Your task to perform on an android device: toggle show notifications on the lock screen Image 0: 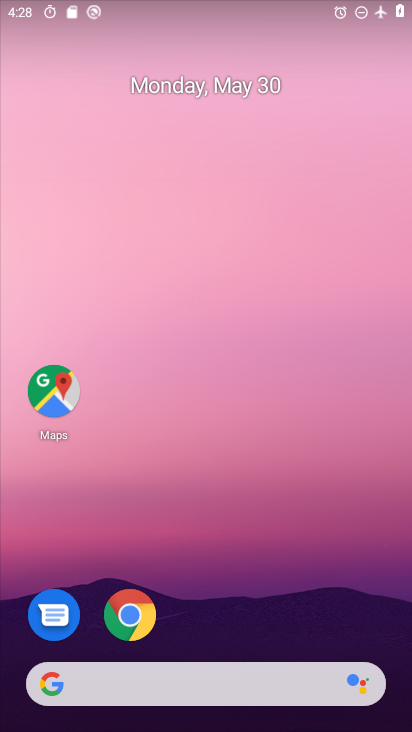
Step 0: drag from (248, 600) to (219, 48)
Your task to perform on an android device: toggle show notifications on the lock screen Image 1: 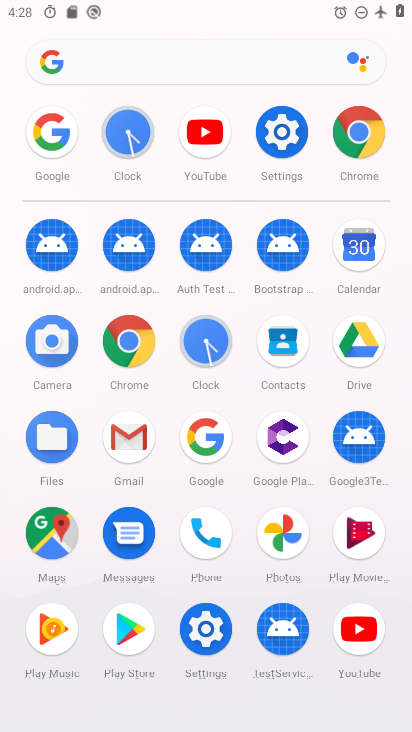
Step 1: click (282, 129)
Your task to perform on an android device: toggle show notifications on the lock screen Image 2: 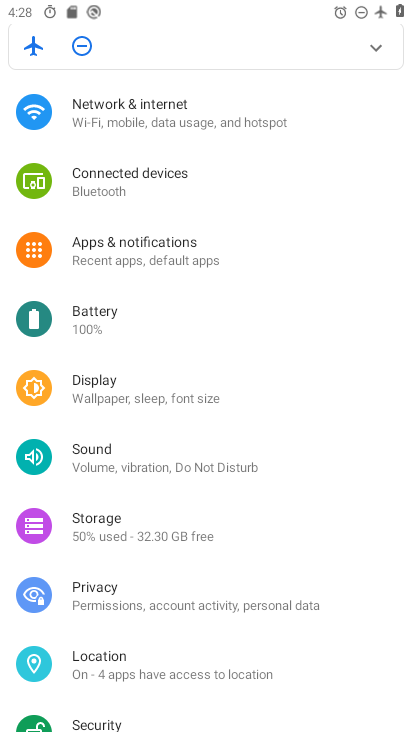
Step 2: click (128, 248)
Your task to perform on an android device: toggle show notifications on the lock screen Image 3: 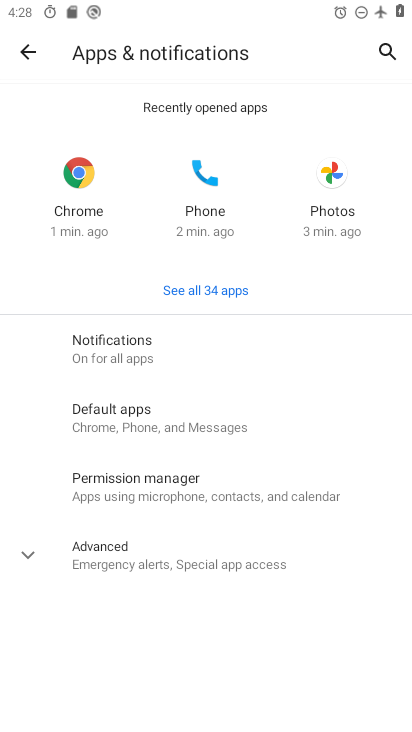
Step 3: click (126, 346)
Your task to perform on an android device: toggle show notifications on the lock screen Image 4: 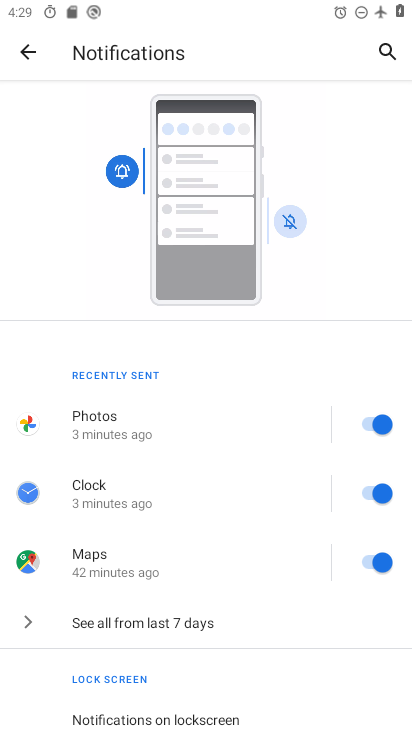
Step 4: drag from (136, 646) to (164, 474)
Your task to perform on an android device: toggle show notifications on the lock screen Image 5: 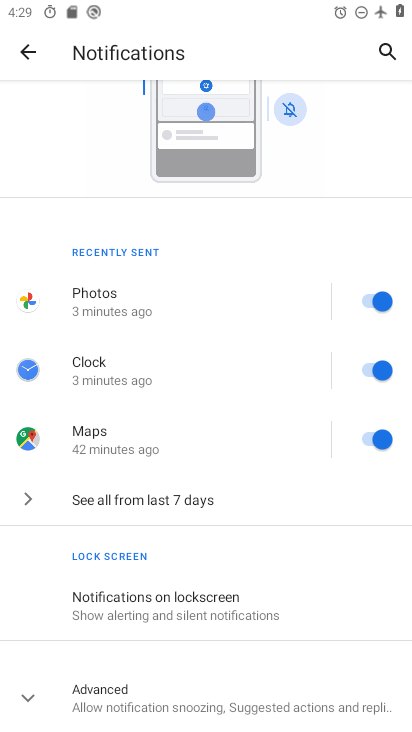
Step 5: click (137, 589)
Your task to perform on an android device: toggle show notifications on the lock screen Image 6: 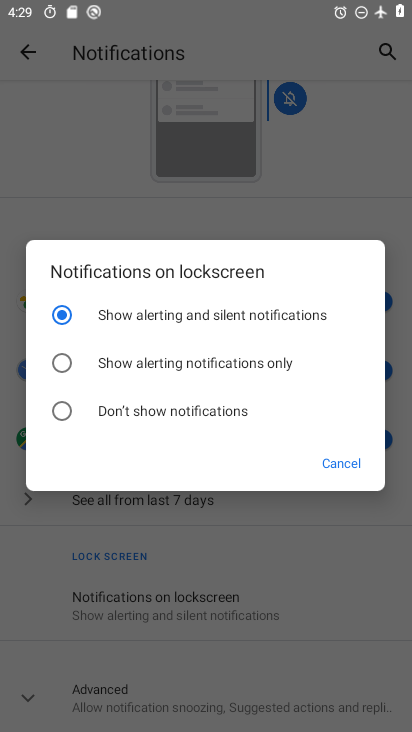
Step 6: click (64, 406)
Your task to perform on an android device: toggle show notifications on the lock screen Image 7: 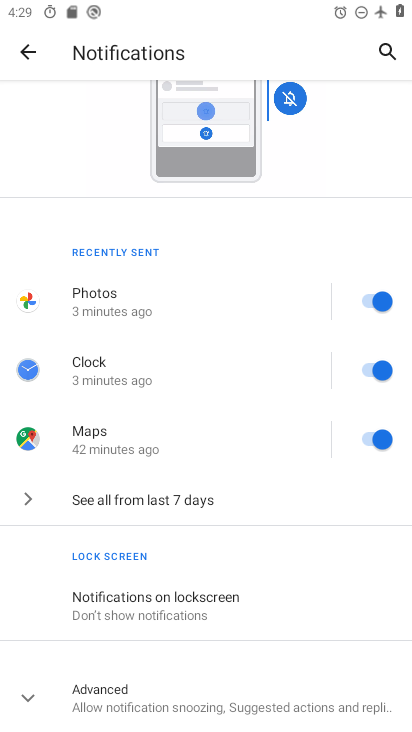
Step 7: task complete